Your task to perform on an android device: change keyboard looks Image 0: 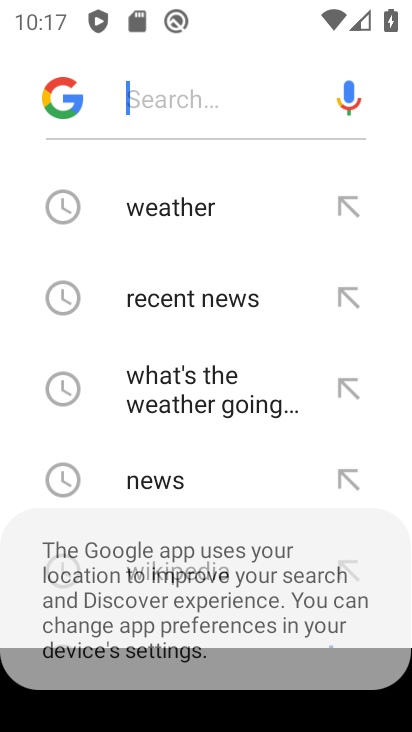
Step 0: press home button
Your task to perform on an android device: change keyboard looks Image 1: 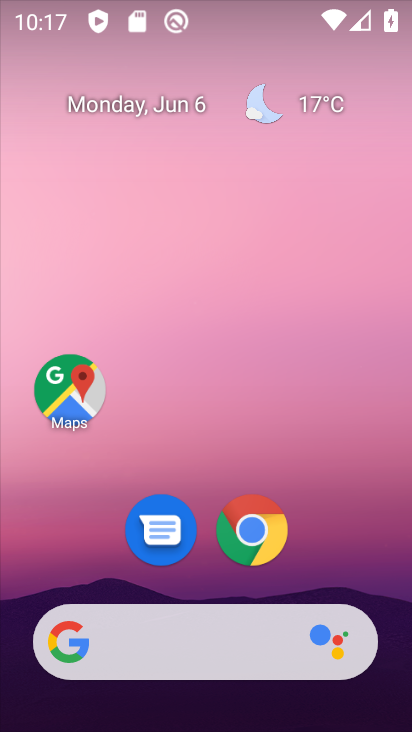
Step 1: click (293, 259)
Your task to perform on an android device: change keyboard looks Image 2: 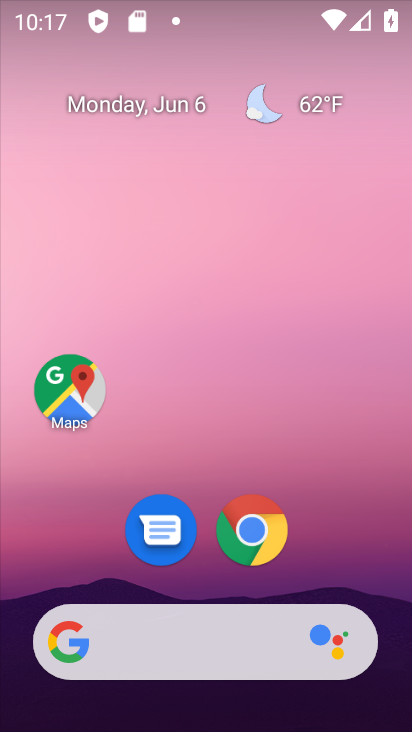
Step 2: drag from (223, 479) to (238, 4)
Your task to perform on an android device: change keyboard looks Image 3: 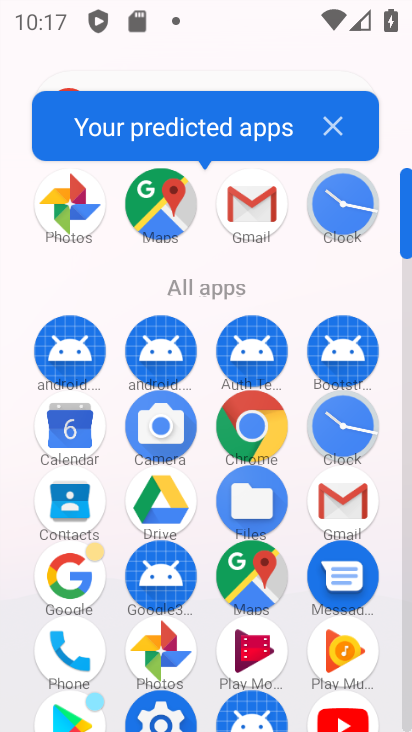
Step 3: click (160, 720)
Your task to perform on an android device: change keyboard looks Image 4: 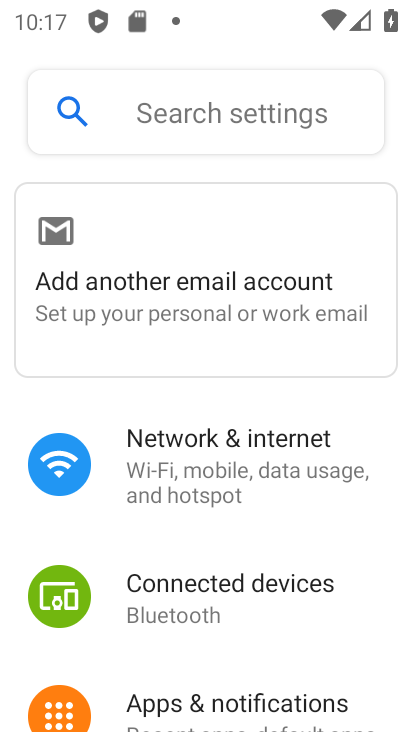
Step 4: drag from (341, 394) to (346, 91)
Your task to perform on an android device: change keyboard looks Image 5: 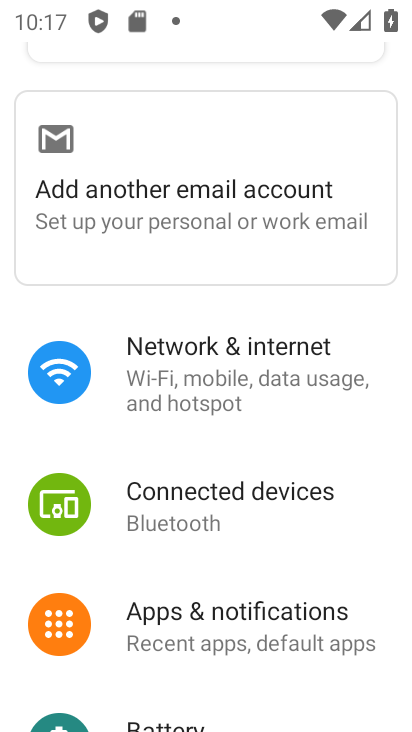
Step 5: drag from (226, 643) to (271, 9)
Your task to perform on an android device: change keyboard looks Image 6: 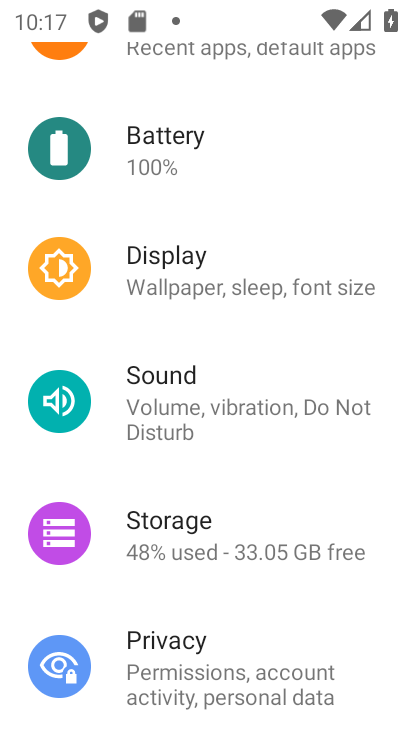
Step 6: drag from (252, 659) to (229, 254)
Your task to perform on an android device: change keyboard looks Image 7: 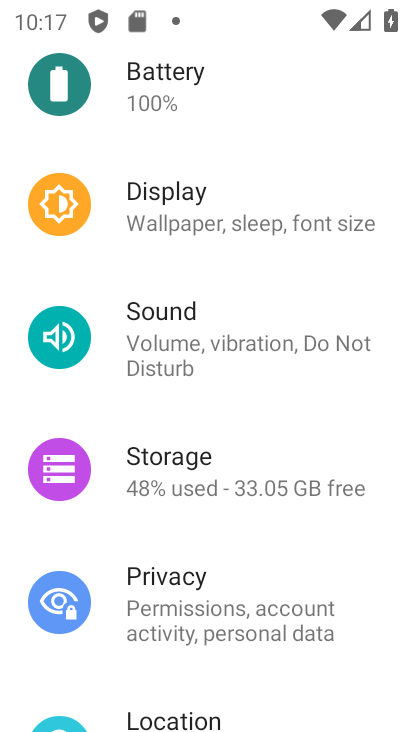
Step 7: drag from (226, 637) to (247, 179)
Your task to perform on an android device: change keyboard looks Image 8: 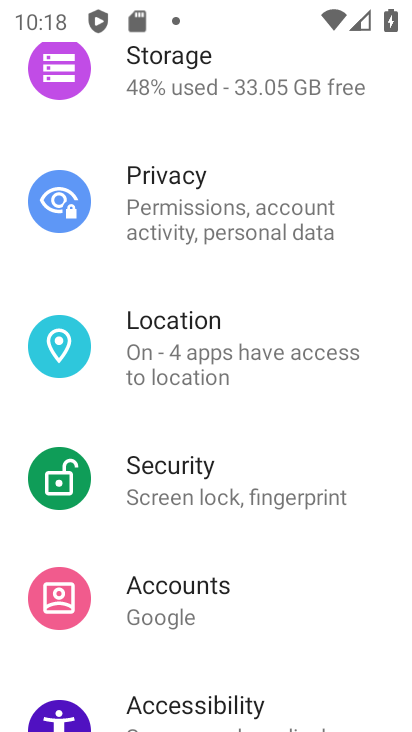
Step 8: drag from (235, 598) to (290, 275)
Your task to perform on an android device: change keyboard looks Image 9: 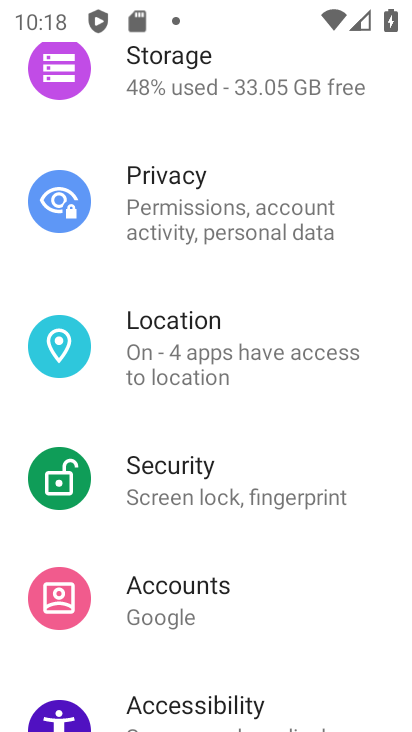
Step 9: drag from (263, 620) to (283, 192)
Your task to perform on an android device: change keyboard looks Image 10: 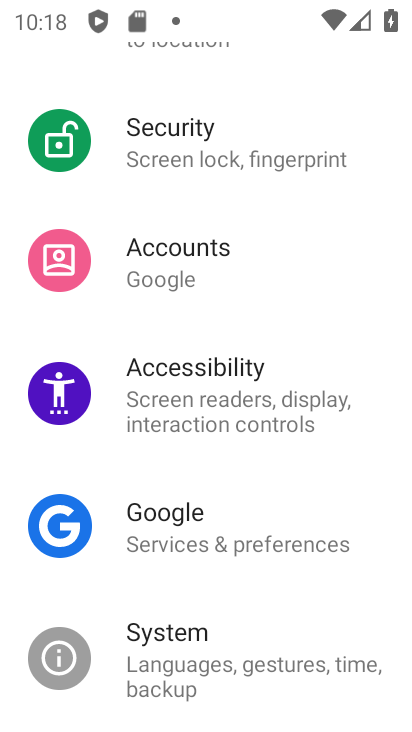
Step 10: click (189, 660)
Your task to perform on an android device: change keyboard looks Image 11: 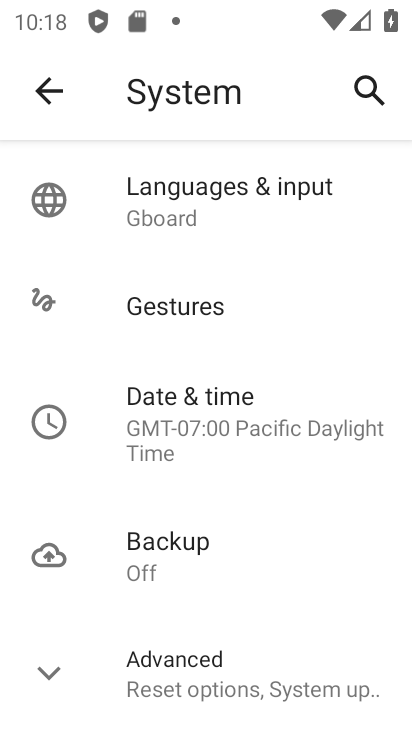
Step 11: click (239, 209)
Your task to perform on an android device: change keyboard looks Image 12: 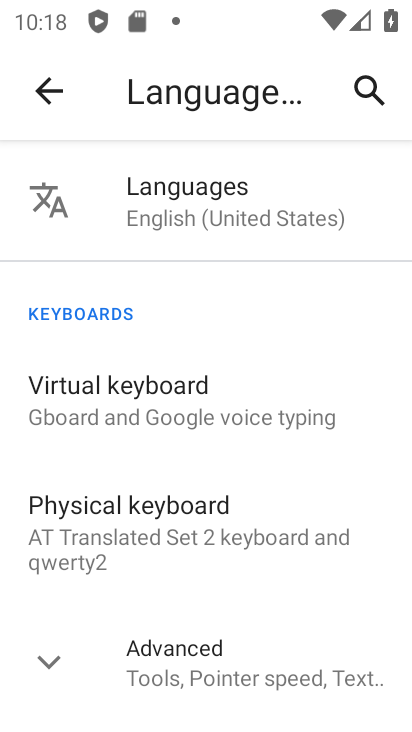
Step 12: click (171, 396)
Your task to perform on an android device: change keyboard looks Image 13: 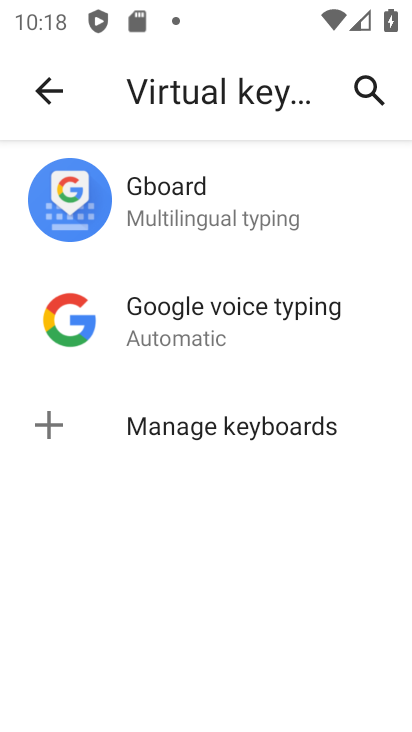
Step 13: click (208, 199)
Your task to perform on an android device: change keyboard looks Image 14: 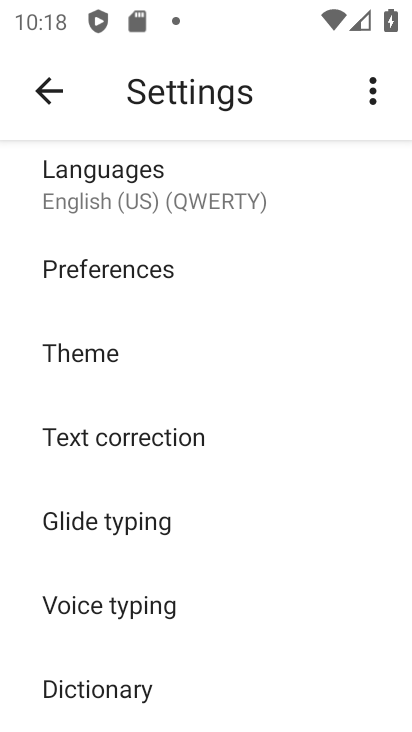
Step 14: click (143, 349)
Your task to perform on an android device: change keyboard looks Image 15: 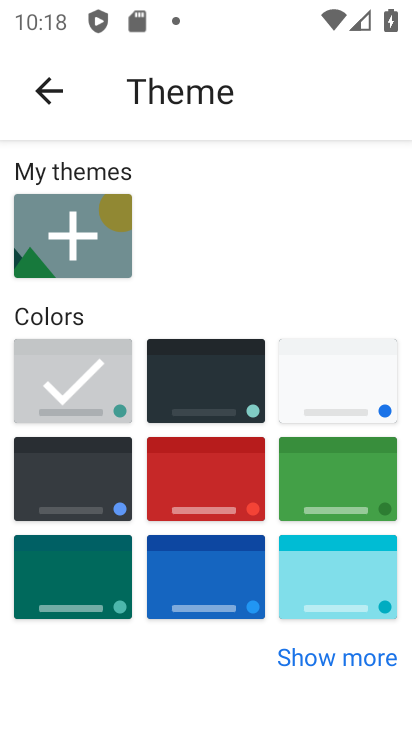
Step 15: click (184, 382)
Your task to perform on an android device: change keyboard looks Image 16: 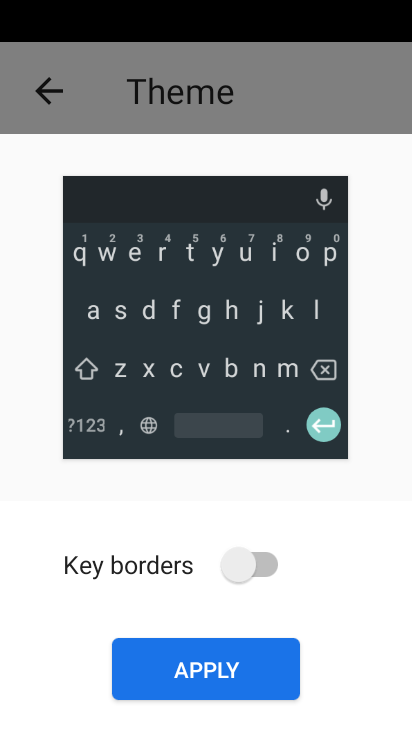
Step 16: click (232, 667)
Your task to perform on an android device: change keyboard looks Image 17: 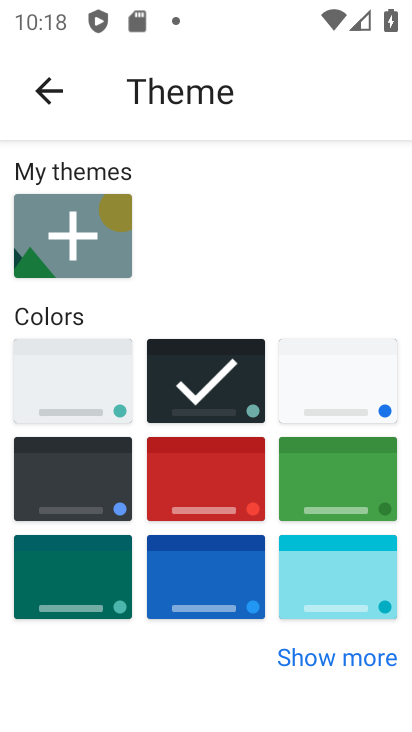
Step 17: task complete